Your task to perform on an android device: Clear the shopping cart on newegg.com. Search for "bose quietcomfort 35" on newegg.com, select the first entry, add it to the cart, then select checkout. Image 0: 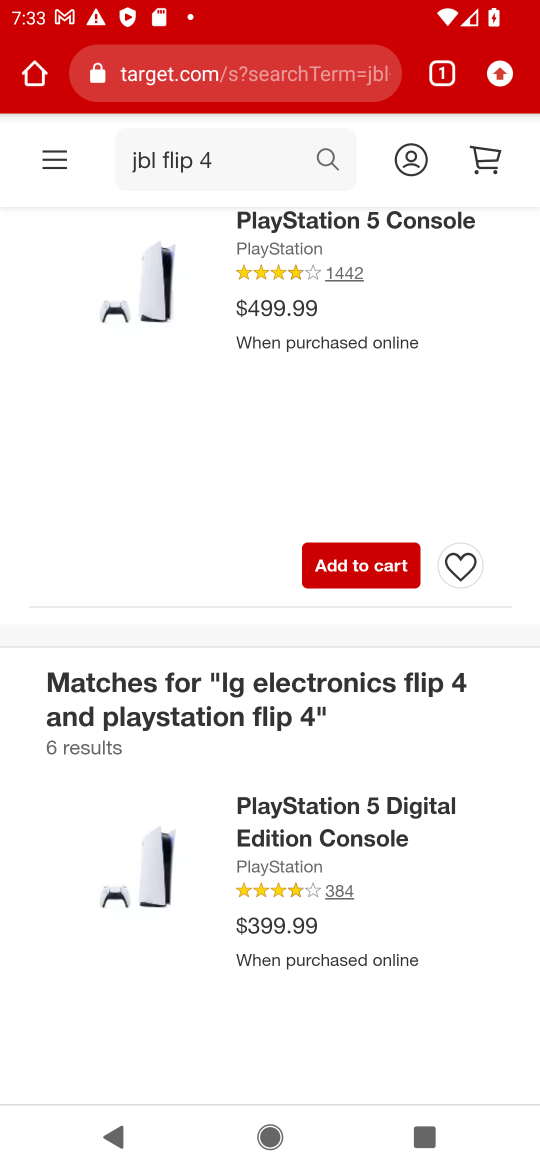
Step 0: click (274, 89)
Your task to perform on an android device: Clear the shopping cart on newegg.com. Search for "bose quietcomfort 35" on newegg.com, select the first entry, add it to the cart, then select checkout. Image 1: 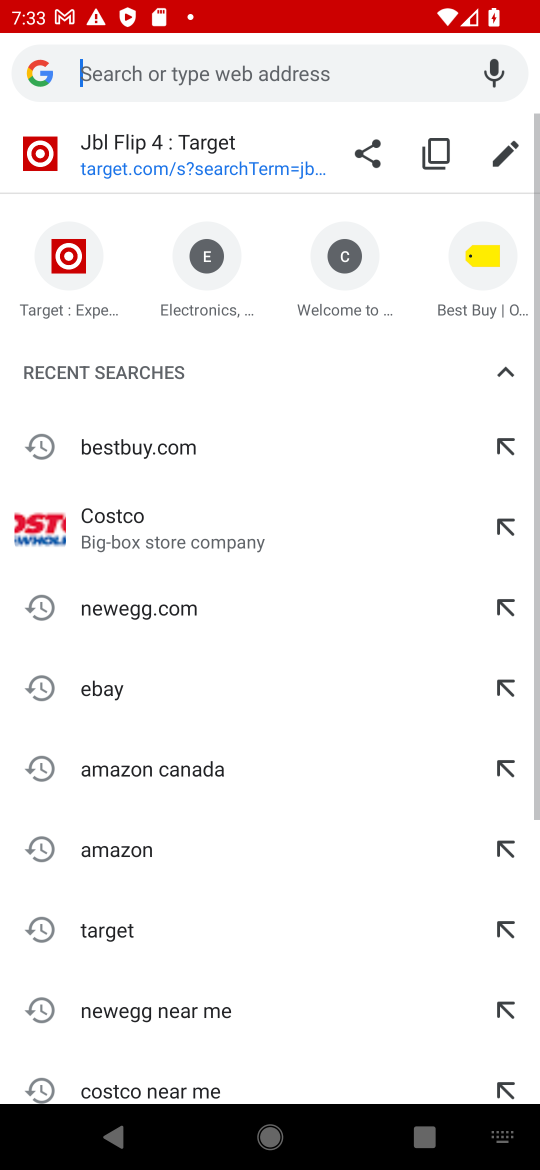
Step 1: type " newegg.com"
Your task to perform on an android device: Clear the shopping cart on newegg.com. Search for "bose quietcomfort 35" on newegg.com, select the first entry, add it to the cart, then select checkout. Image 2: 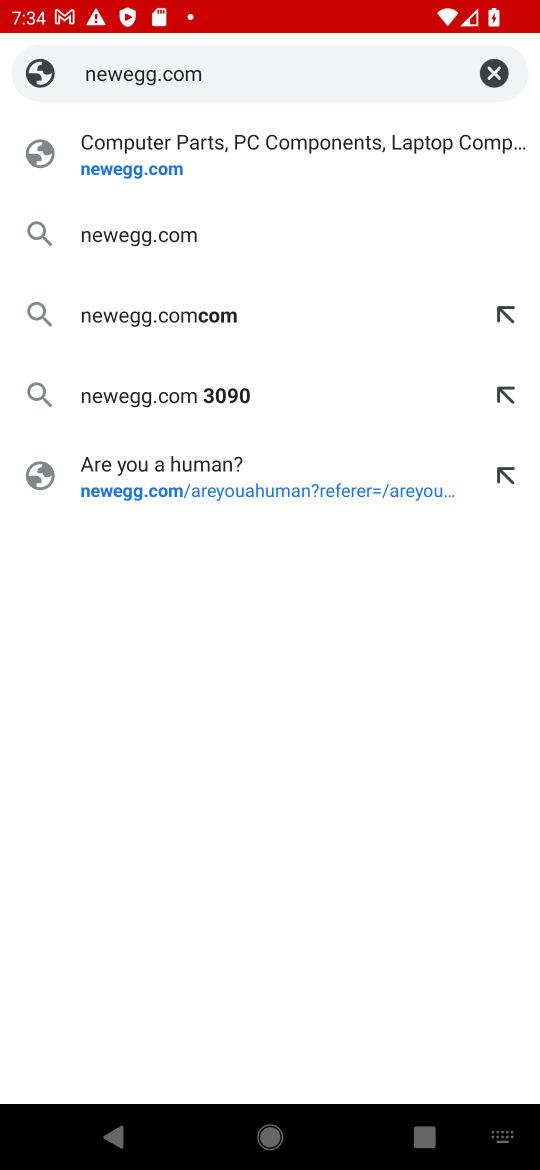
Step 2: click (118, 165)
Your task to perform on an android device: Clear the shopping cart on newegg.com. Search for "bose quietcomfort 35" on newegg.com, select the first entry, add it to the cart, then select checkout. Image 3: 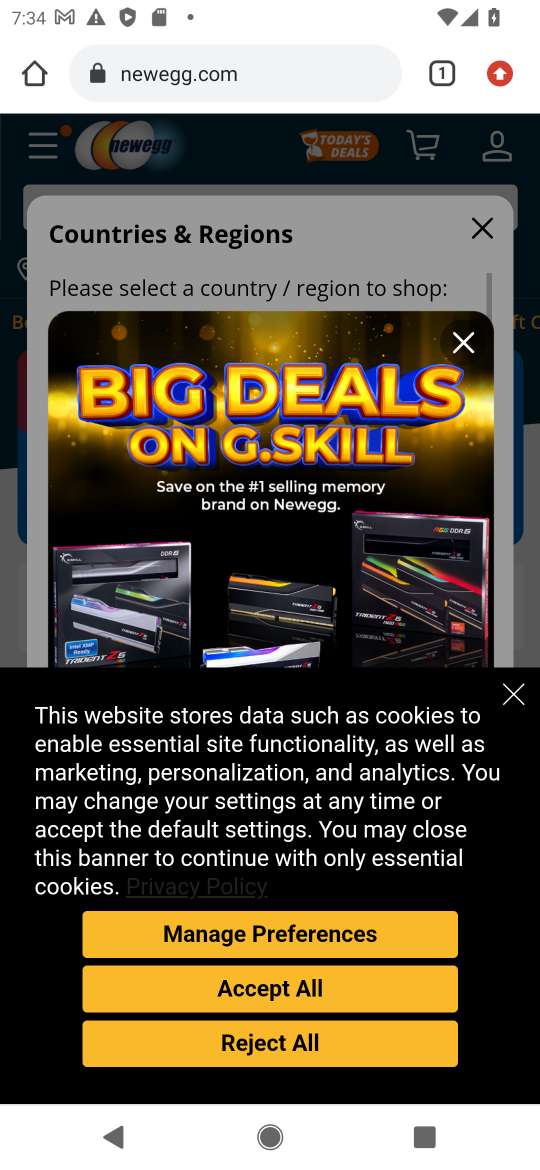
Step 3: click (460, 348)
Your task to perform on an android device: Clear the shopping cart on newegg.com. Search for "bose quietcomfort 35" on newegg.com, select the first entry, add it to the cart, then select checkout. Image 4: 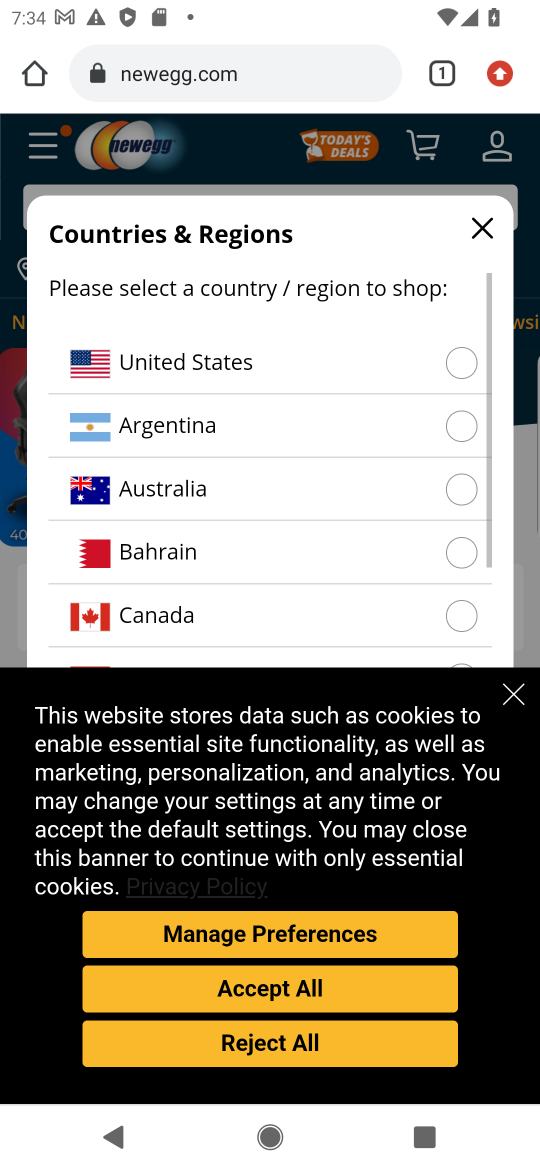
Step 4: click (214, 369)
Your task to perform on an android device: Clear the shopping cart on newegg.com. Search for "bose quietcomfort 35" on newegg.com, select the first entry, add it to the cart, then select checkout. Image 5: 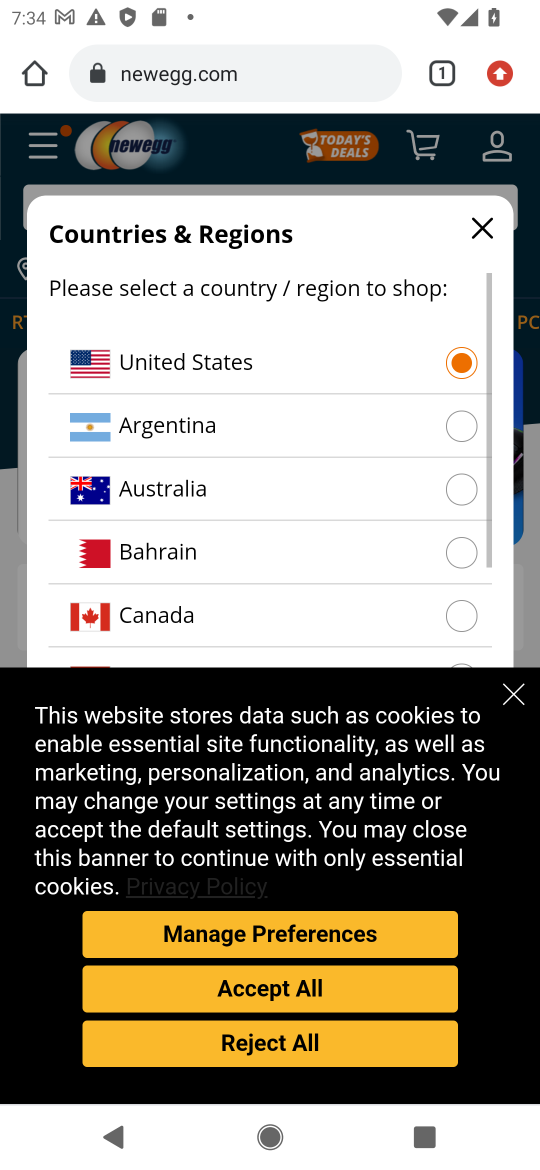
Step 5: click (513, 700)
Your task to perform on an android device: Clear the shopping cart on newegg.com. Search for "bose quietcomfort 35" on newegg.com, select the first entry, add it to the cart, then select checkout. Image 6: 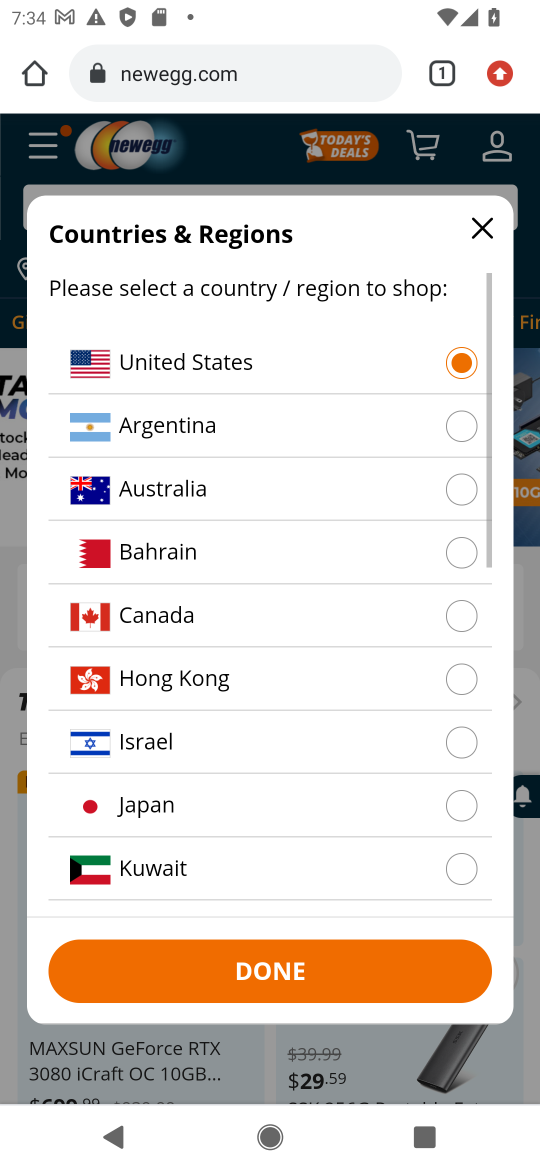
Step 6: click (241, 970)
Your task to perform on an android device: Clear the shopping cart on newegg.com. Search for "bose quietcomfort 35" on newegg.com, select the first entry, add it to the cart, then select checkout. Image 7: 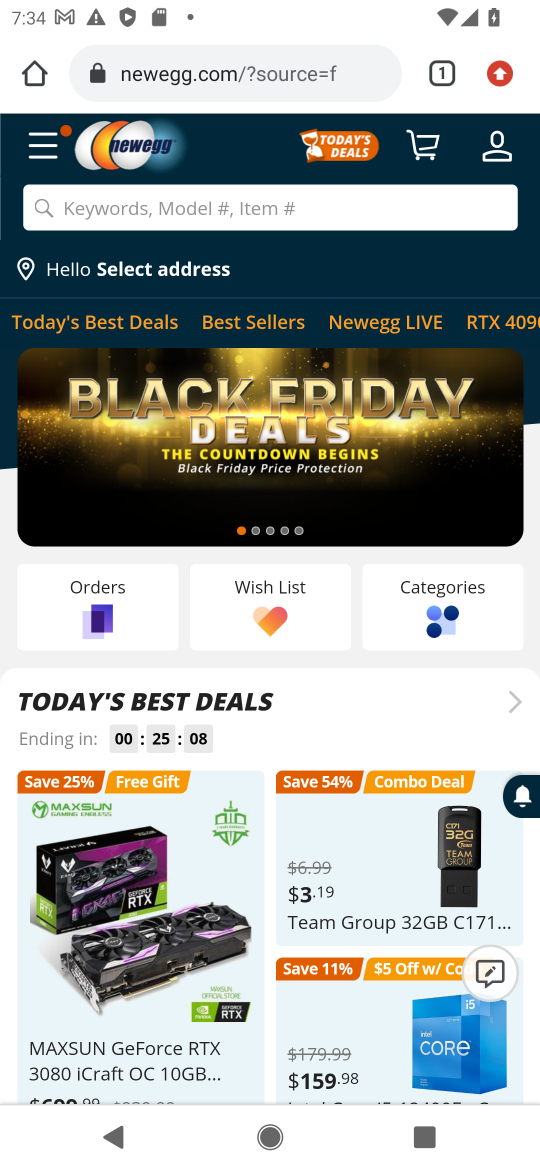
Step 7: click (420, 143)
Your task to perform on an android device: Clear the shopping cart on newegg.com. Search for "bose quietcomfort 35" on newegg.com, select the first entry, add it to the cart, then select checkout. Image 8: 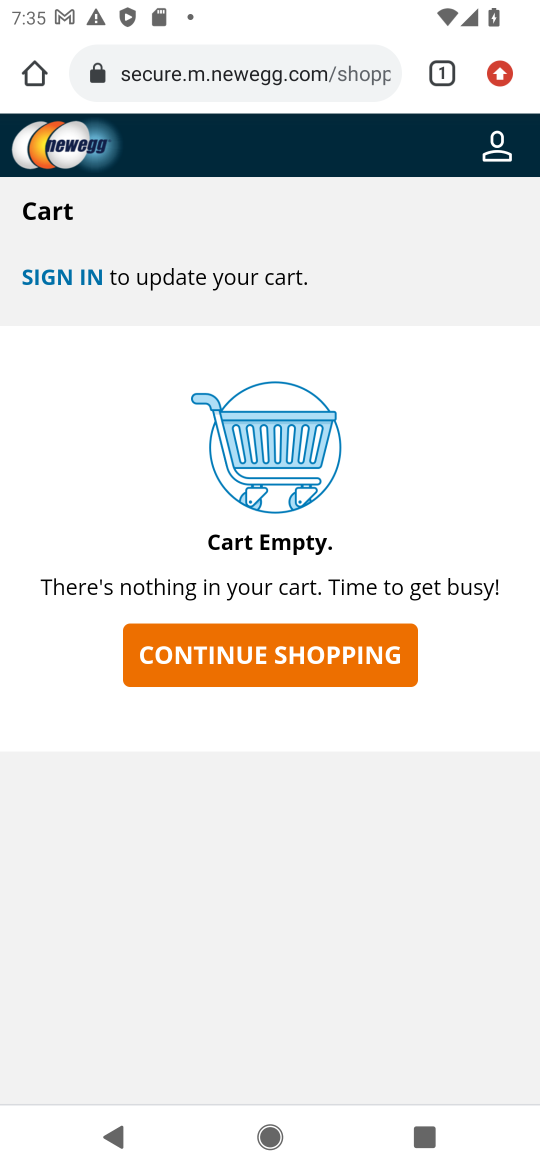
Step 8: click (271, 664)
Your task to perform on an android device: Clear the shopping cart on newegg.com. Search for "bose quietcomfort 35" on newegg.com, select the first entry, add it to the cart, then select checkout. Image 9: 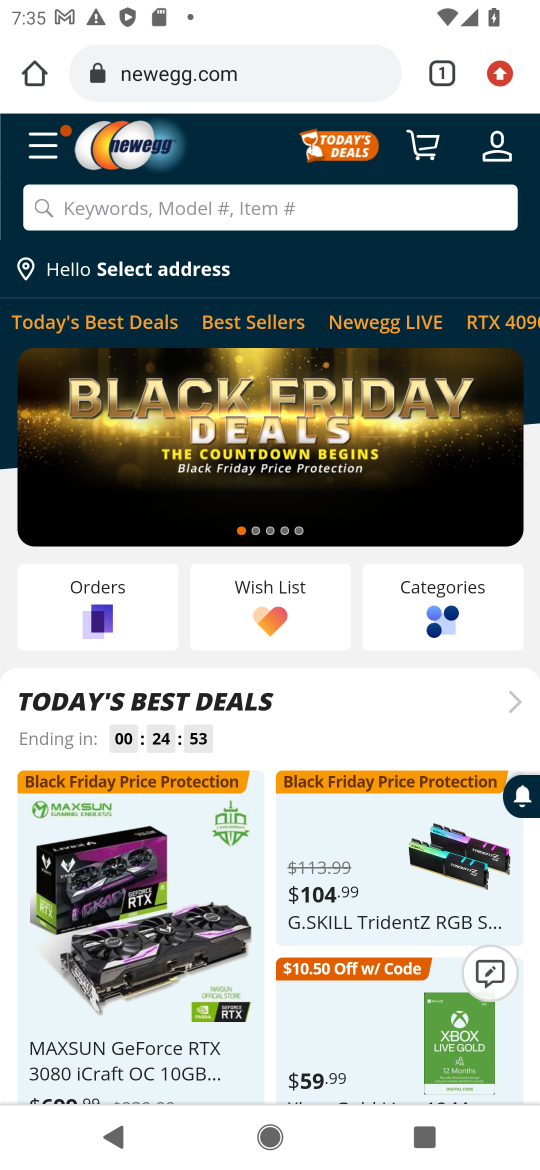
Step 9: click (226, 216)
Your task to perform on an android device: Clear the shopping cart on newegg.com. Search for "bose quietcomfort 35" on newegg.com, select the first entry, add it to the cart, then select checkout. Image 10: 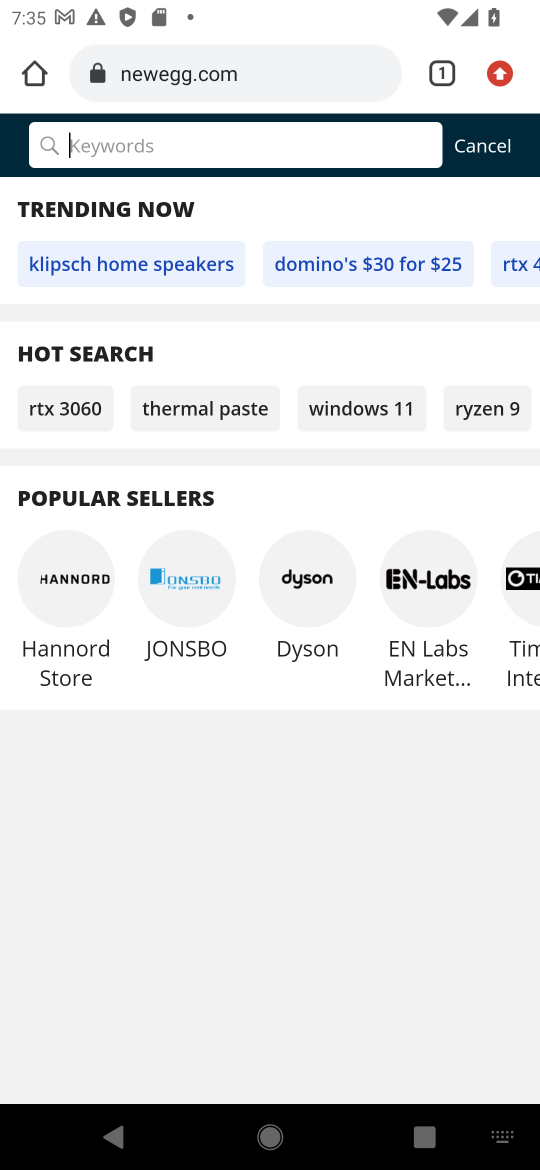
Step 10: type "bose quietcomfort 35"
Your task to perform on an android device: Clear the shopping cart on newegg.com. Search for "bose quietcomfort 35" on newegg.com, select the first entry, add it to the cart, then select checkout. Image 11: 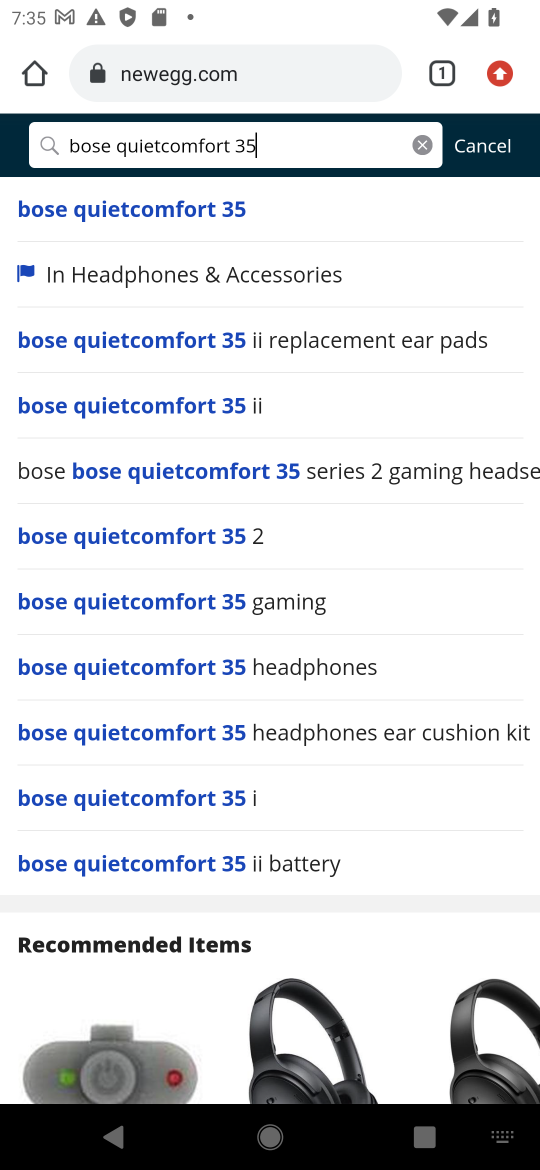
Step 11: click (154, 220)
Your task to perform on an android device: Clear the shopping cart on newegg.com. Search for "bose quietcomfort 35" on newegg.com, select the first entry, add it to the cart, then select checkout. Image 12: 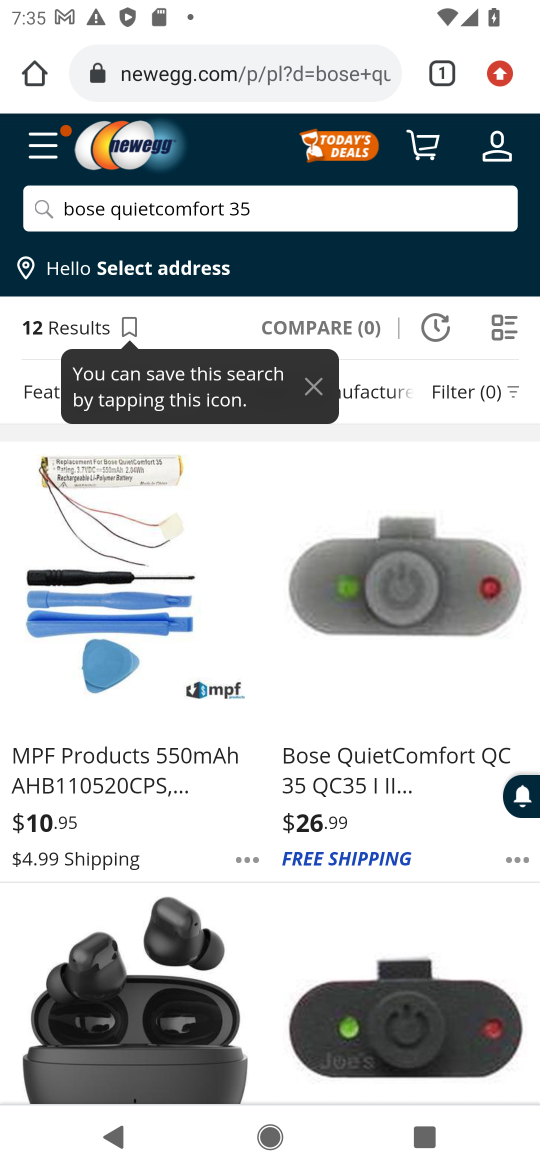
Step 12: task complete